Your task to perform on an android device: turn off data saver in the chrome app Image 0: 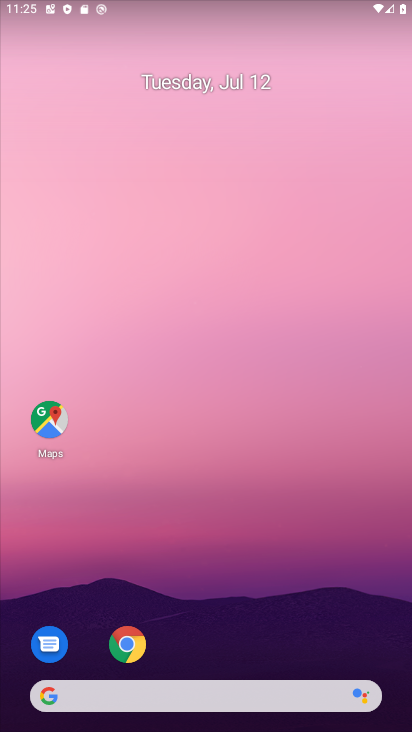
Step 0: click (132, 645)
Your task to perform on an android device: turn off data saver in the chrome app Image 1: 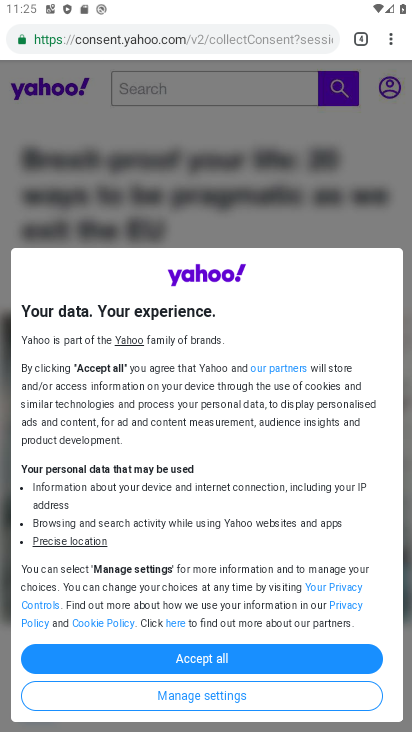
Step 1: click (387, 28)
Your task to perform on an android device: turn off data saver in the chrome app Image 2: 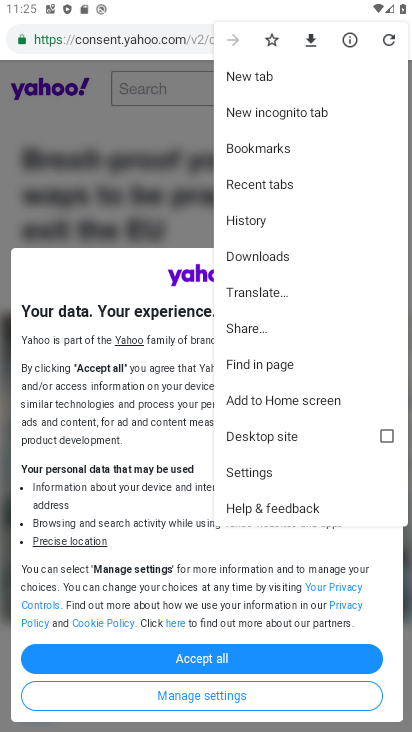
Step 2: click (258, 478)
Your task to perform on an android device: turn off data saver in the chrome app Image 3: 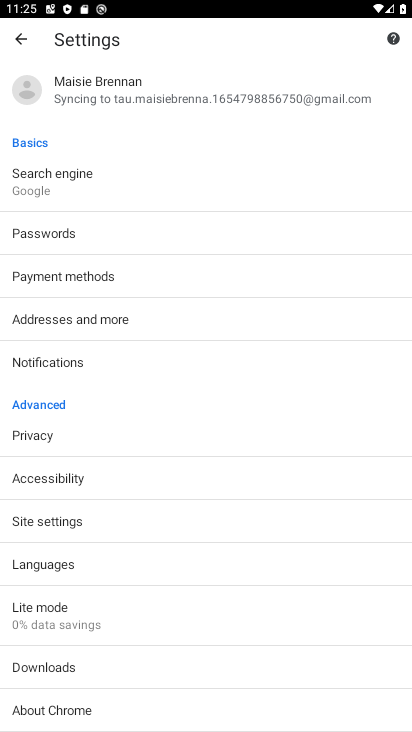
Step 3: click (173, 633)
Your task to perform on an android device: turn off data saver in the chrome app Image 4: 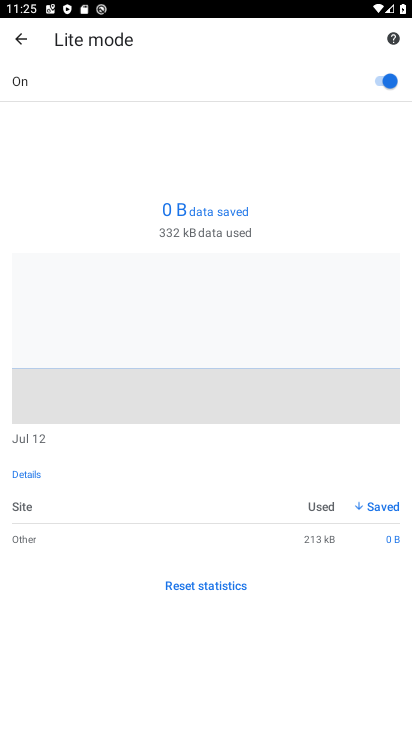
Step 4: click (382, 77)
Your task to perform on an android device: turn off data saver in the chrome app Image 5: 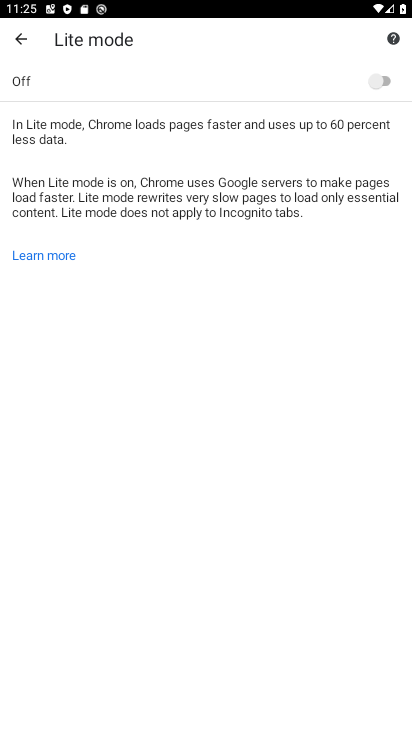
Step 5: task complete